Your task to perform on an android device: open chrome privacy settings Image 0: 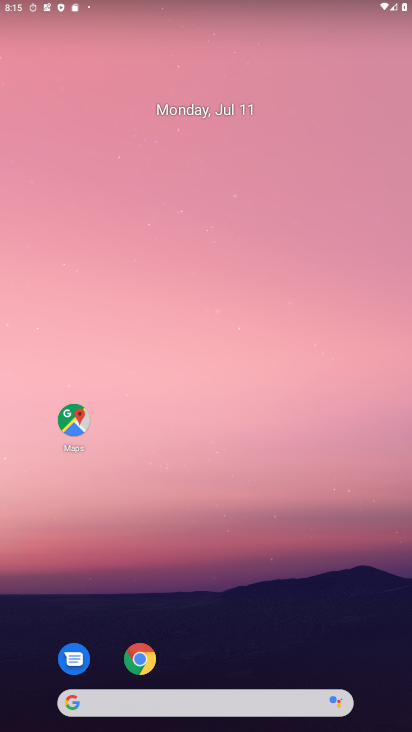
Step 0: drag from (342, 620) to (411, 53)
Your task to perform on an android device: open chrome privacy settings Image 1: 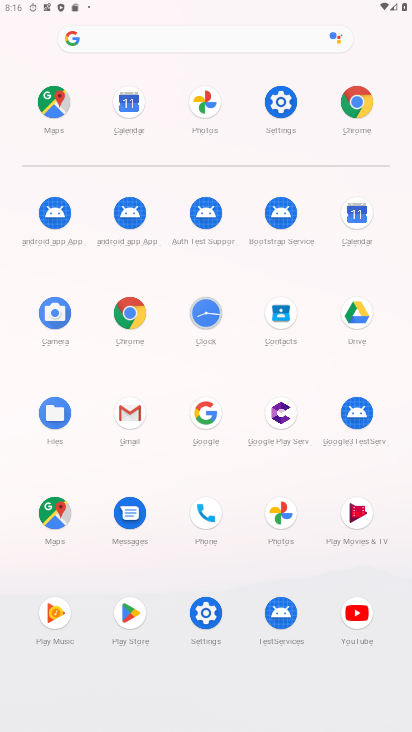
Step 1: click (348, 103)
Your task to perform on an android device: open chrome privacy settings Image 2: 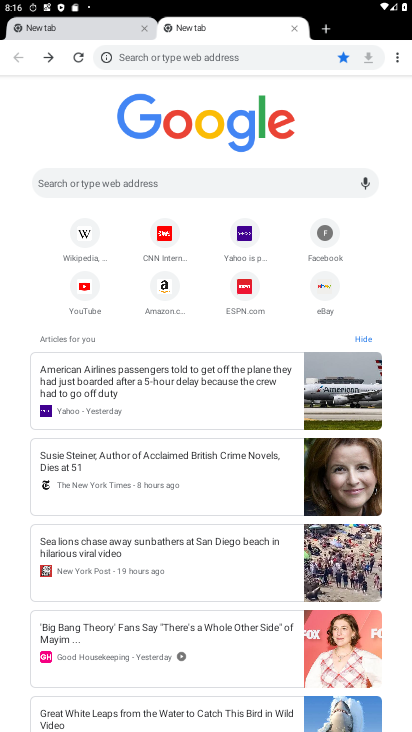
Step 2: drag from (390, 59) to (282, 260)
Your task to perform on an android device: open chrome privacy settings Image 3: 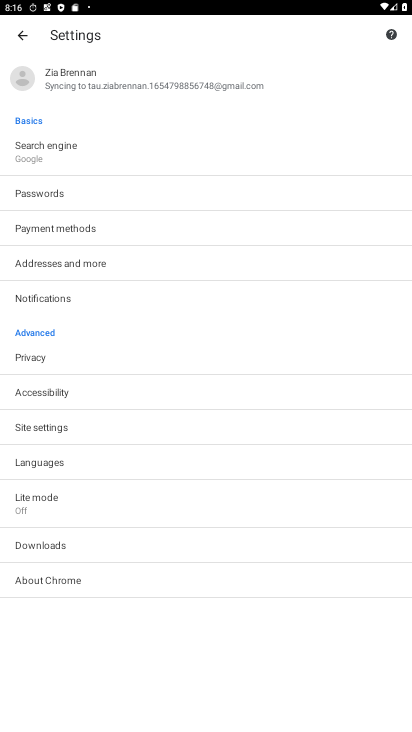
Step 3: click (68, 347)
Your task to perform on an android device: open chrome privacy settings Image 4: 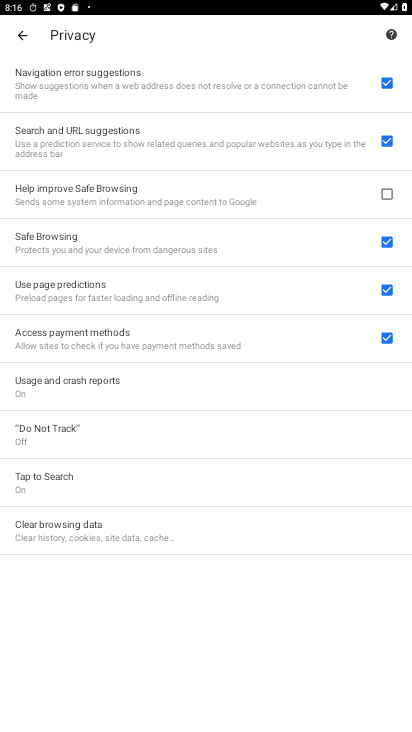
Step 4: task complete